Your task to perform on an android device: Go to privacy settings Image 0: 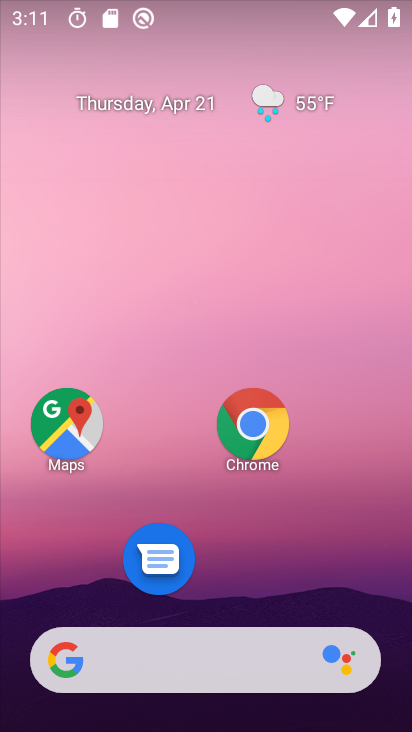
Step 0: click (254, 419)
Your task to perform on an android device: Go to privacy settings Image 1: 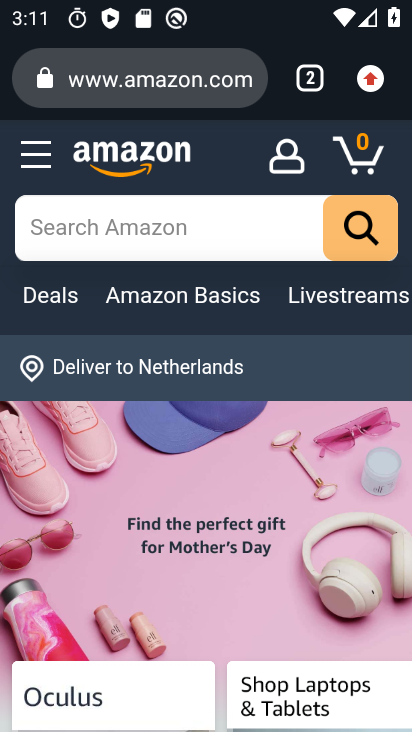
Step 1: click (370, 83)
Your task to perform on an android device: Go to privacy settings Image 2: 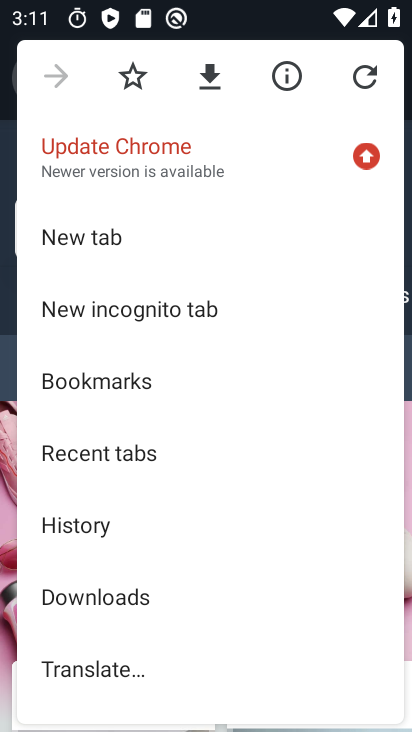
Step 2: drag from (196, 563) to (213, 22)
Your task to perform on an android device: Go to privacy settings Image 3: 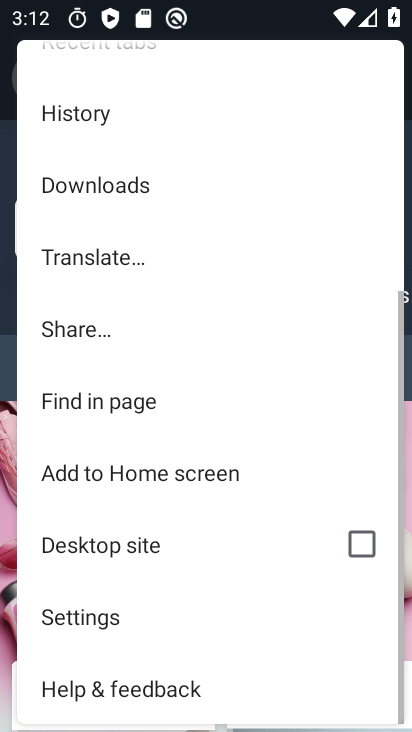
Step 3: click (54, 617)
Your task to perform on an android device: Go to privacy settings Image 4: 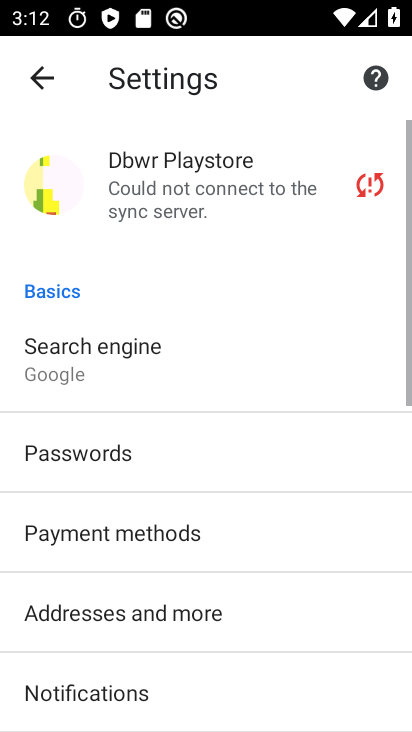
Step 4: drag from (173, 549) to (186, 189)
Your task to perform on an android device: Go to privacy settings Image 5: 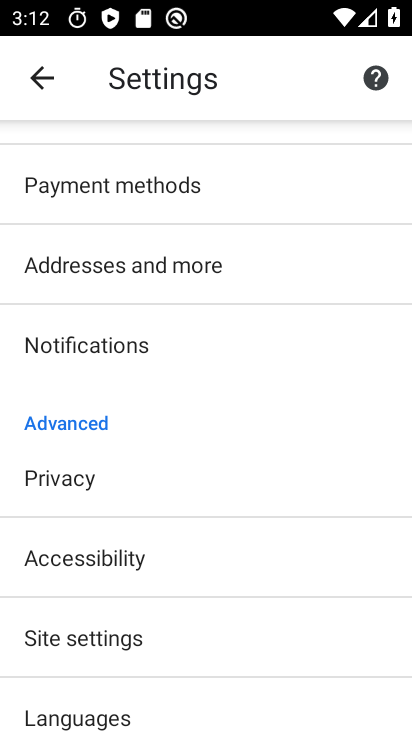
Step 5: click (128, 469)
Your task to perform on an android device: Go to privacy settings Image 6: 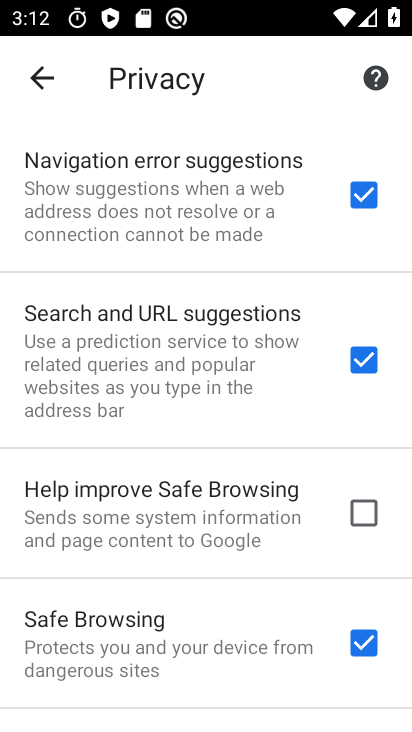
Step 6: task complete